Your task to perform on an android device: delete a single message in the gmail app Image 0: 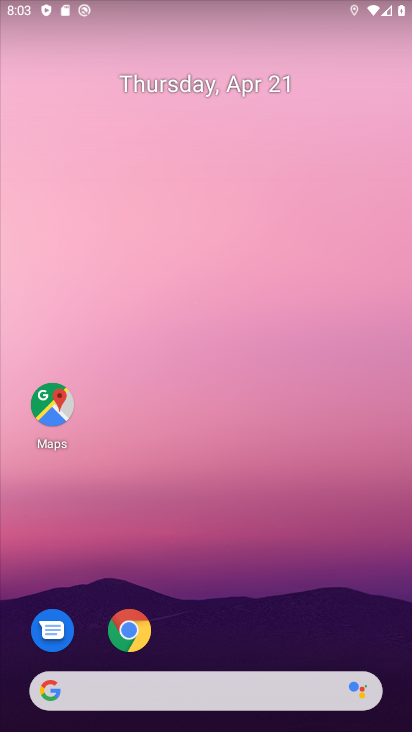
Step 0: drag from (271, 628) to (284, 222)
Your task to perform on an android device: delete a single message in the gmail app Image 1: 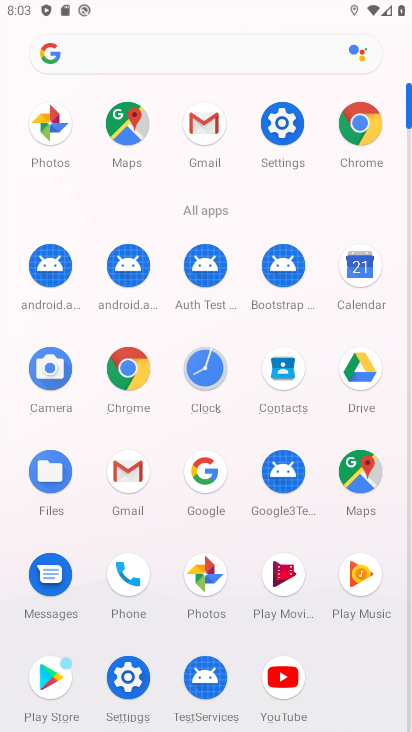
Step 1: click (135, 463)
Your task to perform on an android device: delete a single message in the gmail app Image 2: 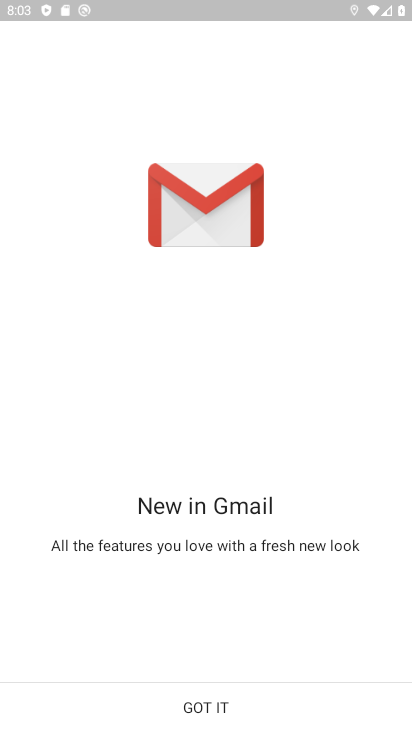
Step 2: click (201, 714)
Your task to perform on an android device: delete a single message in the gmail app Image 3: 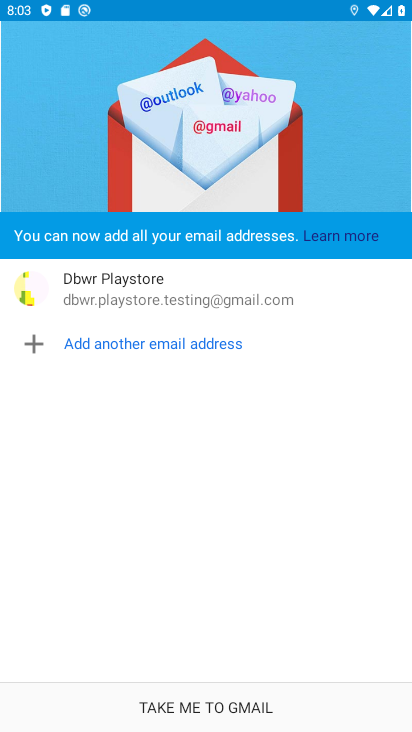
Step 3: click (201, 714)
Your task to perform on an android device: delete a single message in the gmail app Image 4: 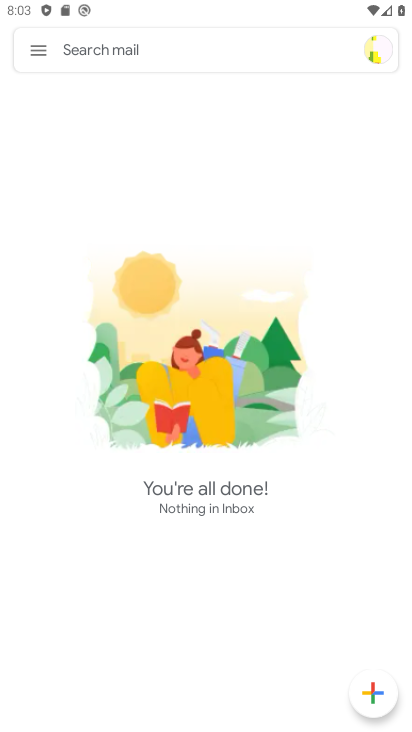
Step 4: task complete